Your task to perform on an android device: Open Youtube and go to "Your channel" Image 0: 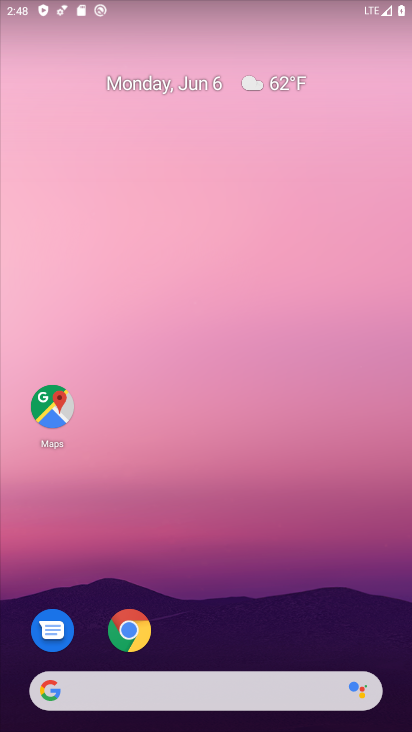
Step 0: press home button
Your task to perform on an android device: Open Youtube and go to "Your channel" Image 1: 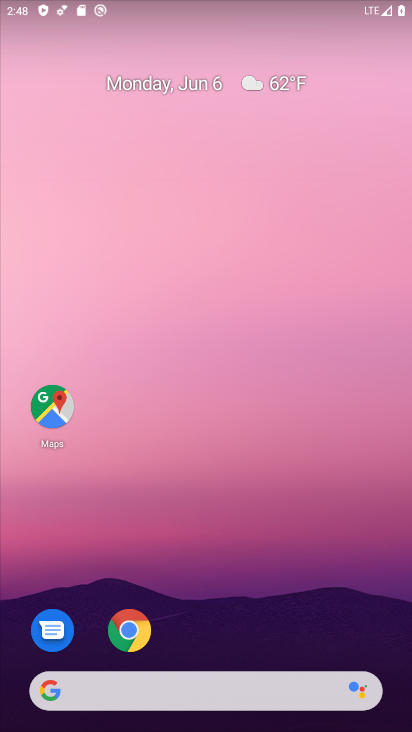
Step 1: drag from (305, 627) to (378, 12)
Your task to perform on an android device: Open Youtube and go to "Your channel" Image 2: 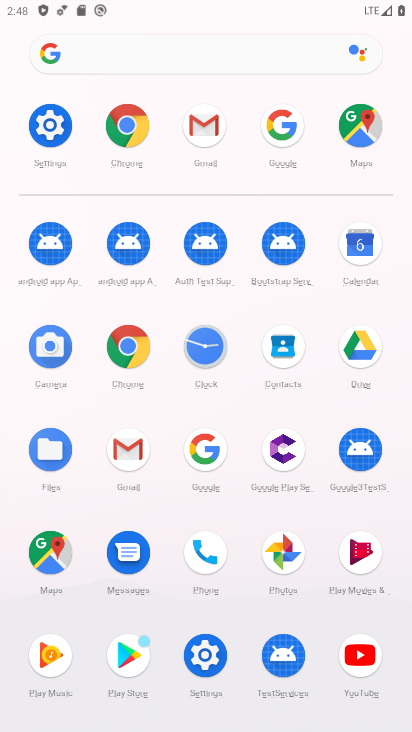
Step 2: drag from (406, 389) to (365, 664)
Your task to perform on an android device: Open Youtube and go to "Your channel" Image 3: 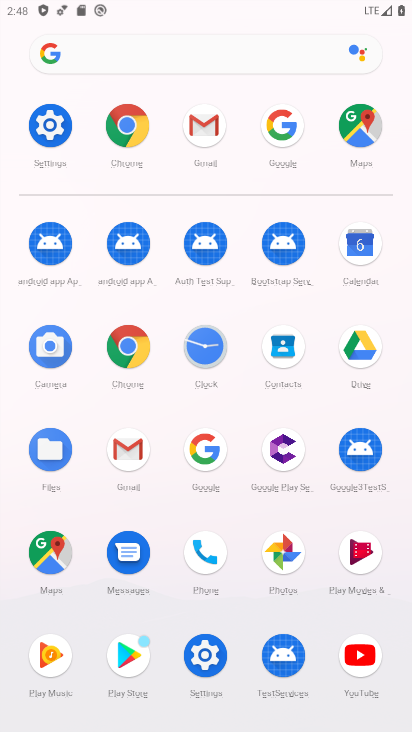
Step 3: click (365, 664)
Your task to perform on an android device: Open Youtube and go to "Your channel" Image 4: 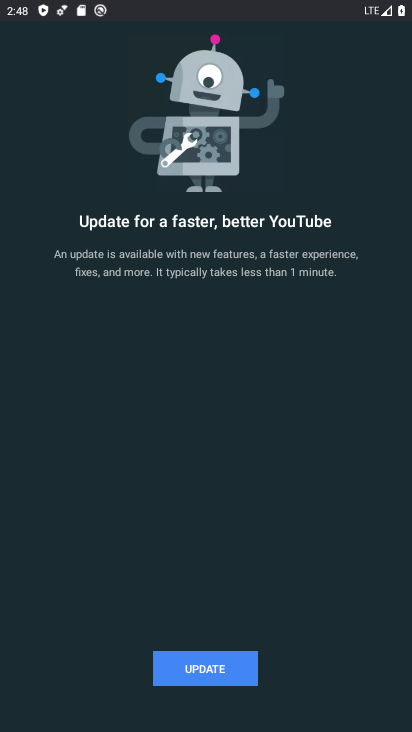
Step 4: click (184, 660)
Your task to perform on an android device: Open Youtube and go to "Your channel" Image 5: 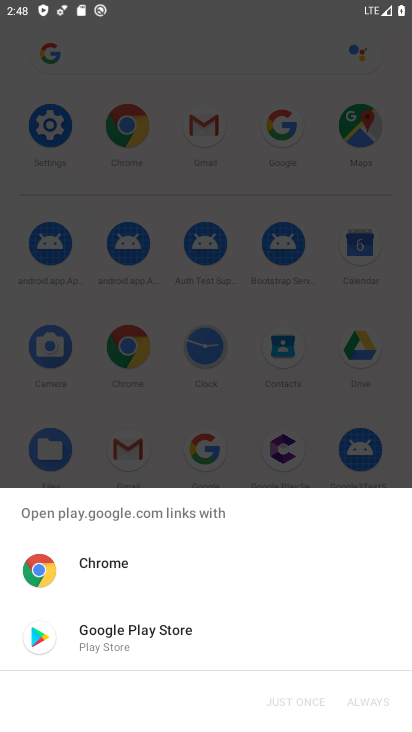
Step 5: click (155, 625)
Your task to perform on an android device: Open Youtube and go to "Your channel" Image 6: 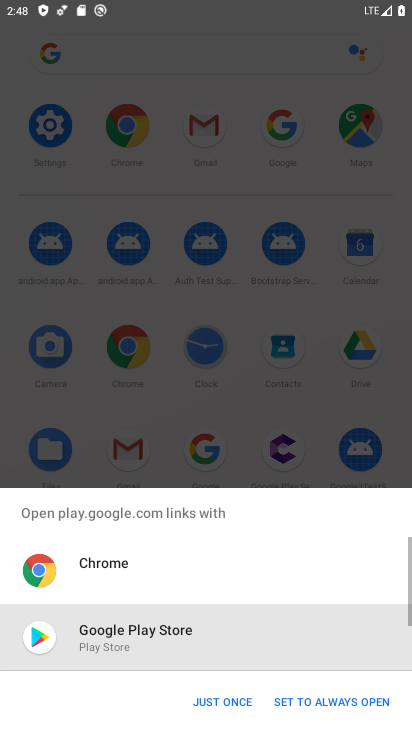
Step 6: click (234, 712)
Your task to perform on an android device: Open Youtube and go to "Your channel" Image 7: 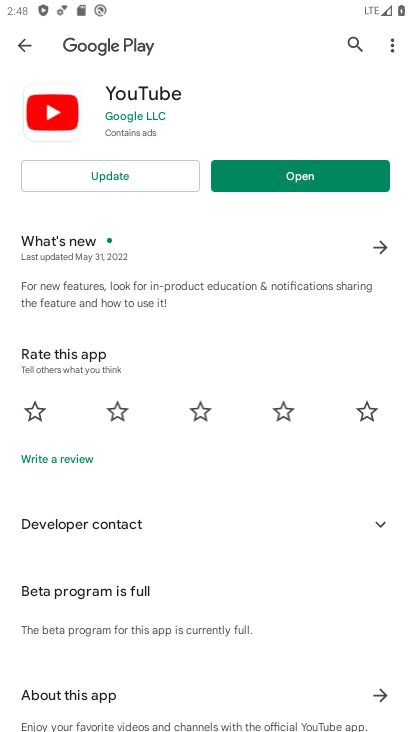
Step 7: click (83, 167)
Your task to perform on an android device: Open Youtube and go to "Your channel" Image 8: 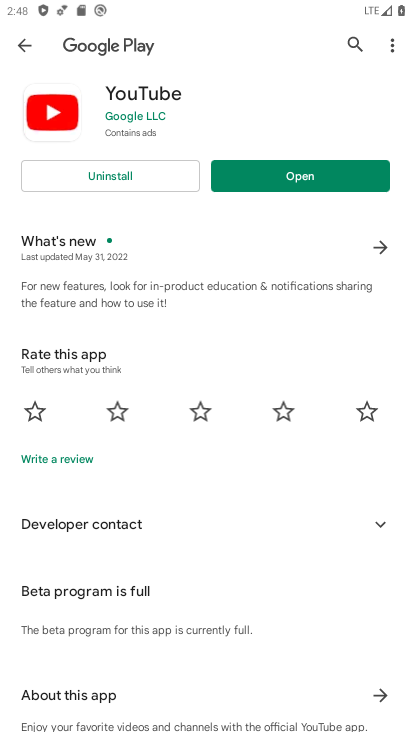
Step 8: click (320, 177)
Your task to perform on an android device: Open Youtube and go to "Your channel" Image 9: 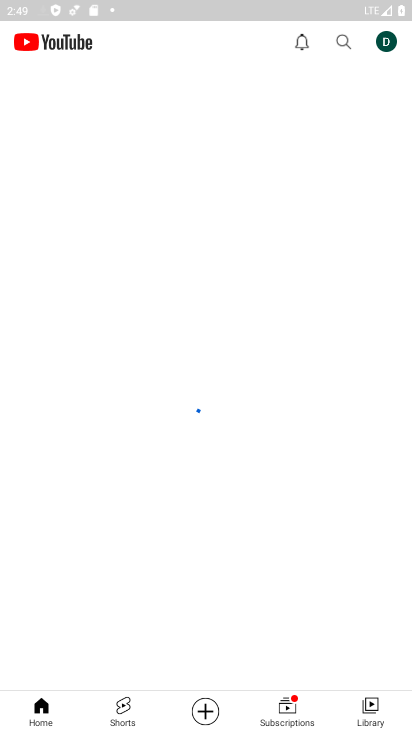
Step 9: click (381, 35)
Your task to perform on an android device: Open Youtube and go to "Your channel" Image 10: 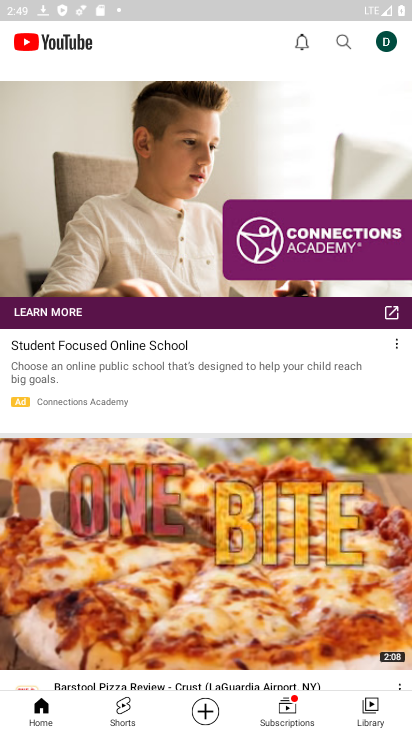
Step 10: click (379, 34)
Your task to perform on an android device: Open Youtube and go to "Your channel" Image 11: 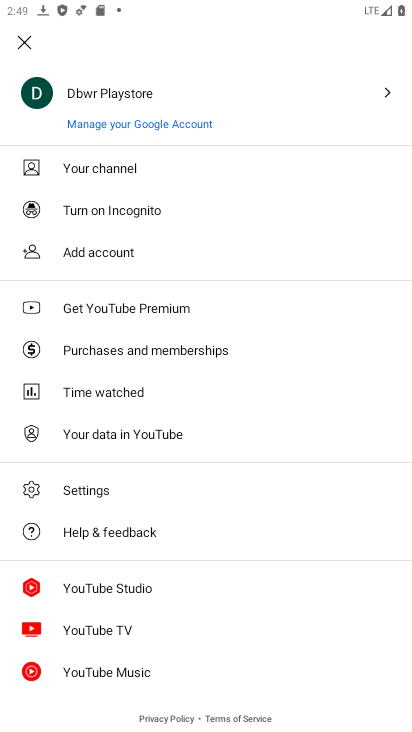
Step 11: click (86, 168)
Your task to perform on an android device: Open Youtube and go to "Your channel" Image 12: 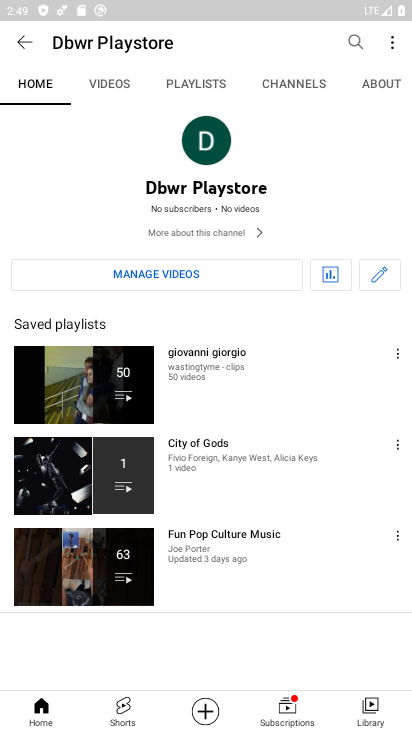
Step 12: task complete